Your task to perform on an android device: Search for sushi restaurants on Maps Image 0: 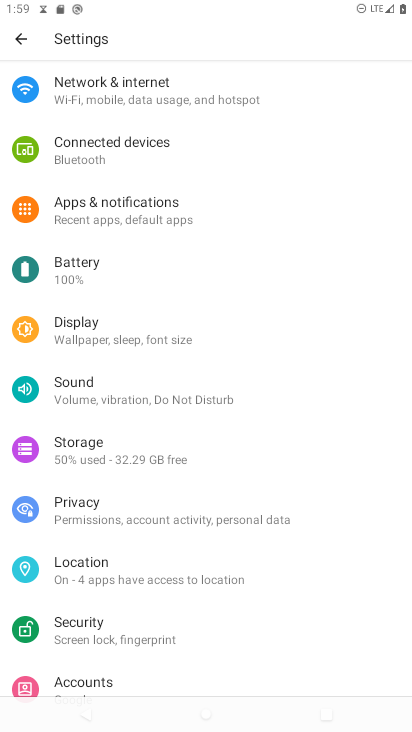
Step 0: press home button
Your task to perform on an android device: Search for sushi restaurants on Maps Image 1: 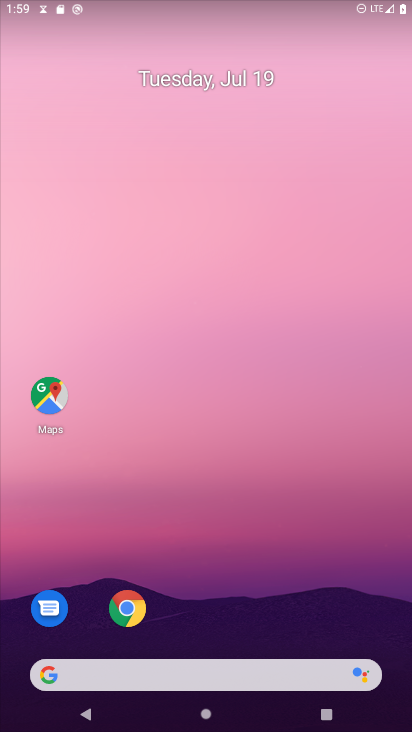
Step 1: drag from (338, 591) to (323, 1)
Your task to perform on an android device: Search for sushi restaurants on Maps Image 2: 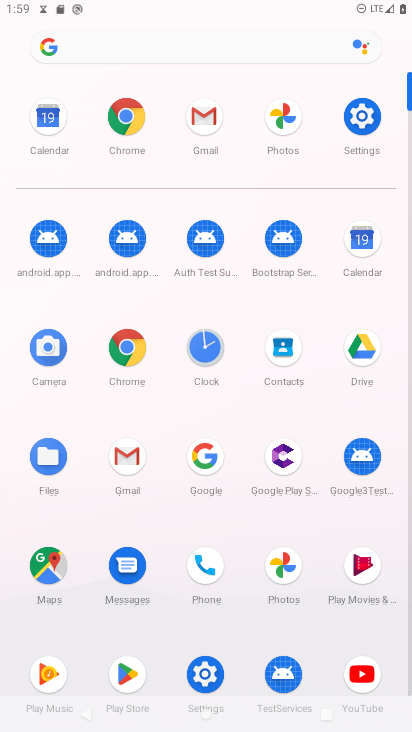
Step 2: click (52, 574)
Your task to perform on an android device: Search for sushi restaurants on Maps Image 3: 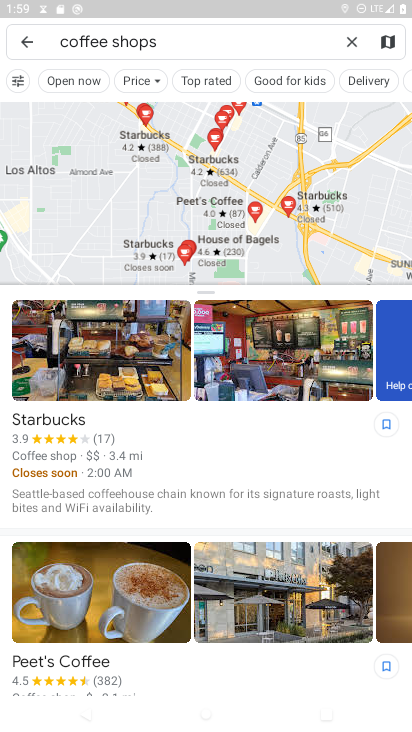
Step 3: click (355, 41)
Your task to perform on an android device: Search for sushi restaurants on Maps Image 4: 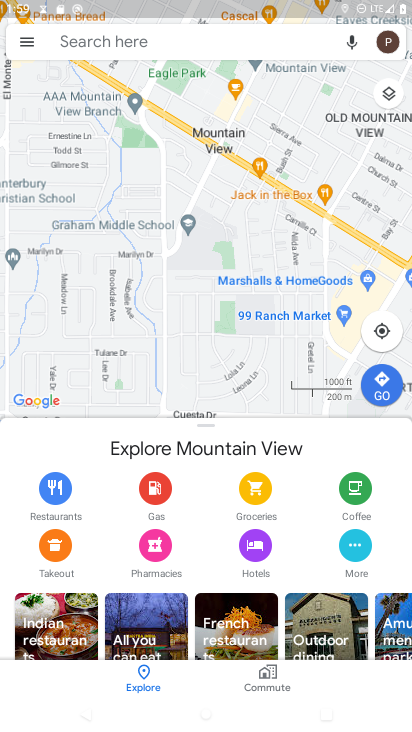
Step 4: click (241, 48)
Your task to perform on an android device: Search for sushi restaurants on Maps Image 5: 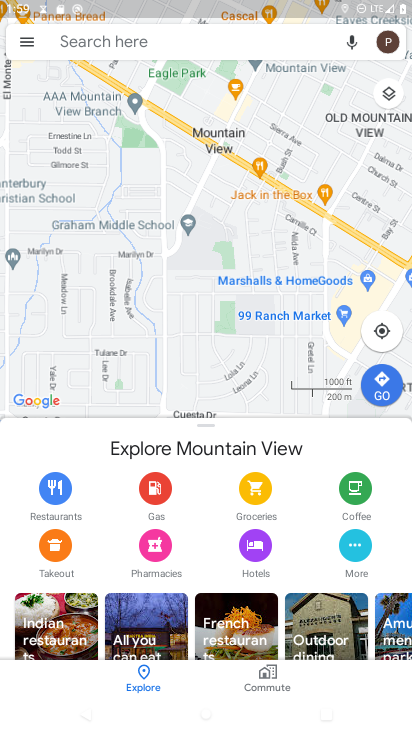
Step 5: click (241, 48)
Your task to perform on an android device: Search for sushi restaurants on Maps Image 6: 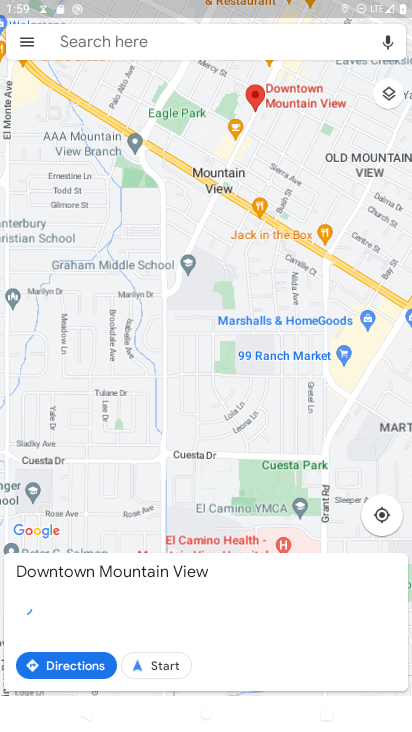
Step 6: click (252, 37)
Your task to perform on an android device: Search for sushi restaurants on Maps Image 7: 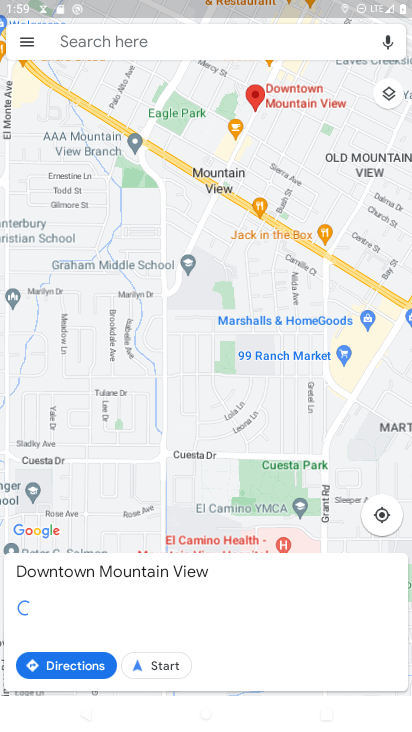
Step 7: click (252, 37)
Your task to perform on an android device: Search for sushi restaurants on Maps Image 8: 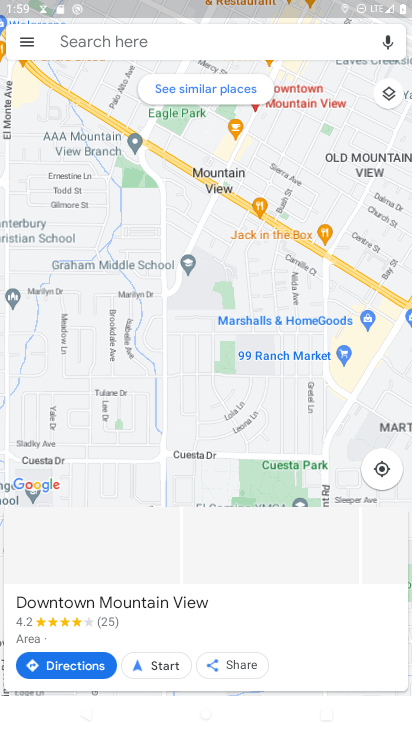
Step 8: click (252, 37)
Your task to perform on an android device: Search for sushi restaurants on Maps Image 9: 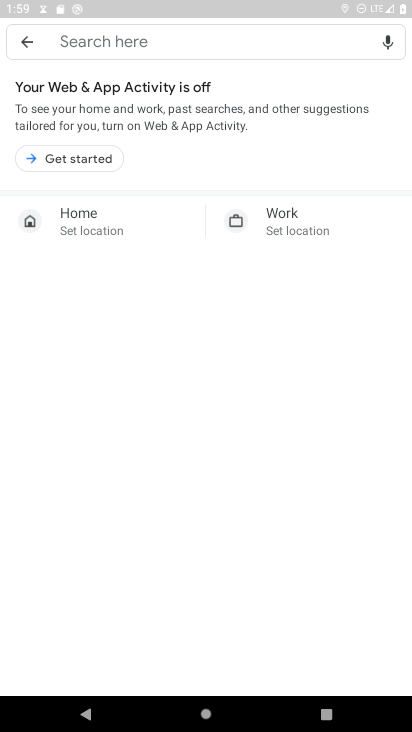
Step 9: type "sushi restaurant"
Your task to perform on an android device: Search for sushi restaurants on Maps Image 10: 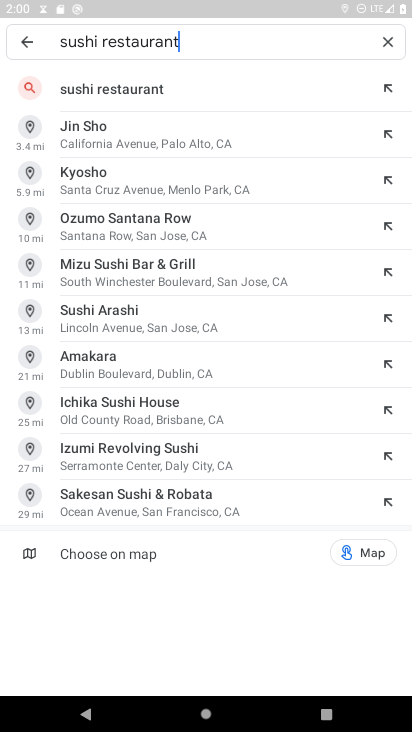
Step 10: click (124, 87)
Your task to perform on an android device: Search for sushi restaurants on Maps Image 11: 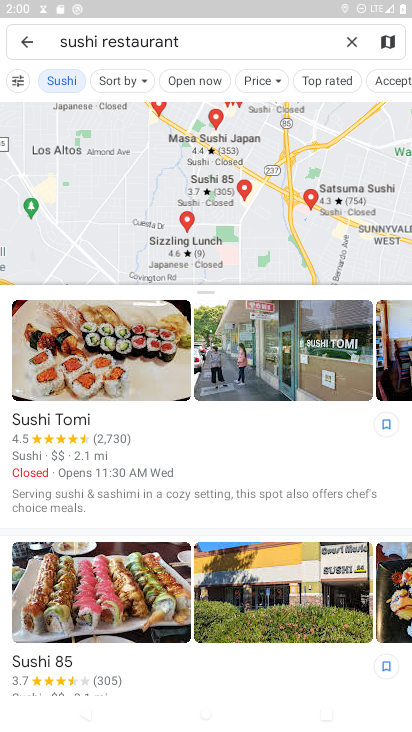
Step 11: task complete